Your task to perform on an android device: star an email in the gmail app Image 0: 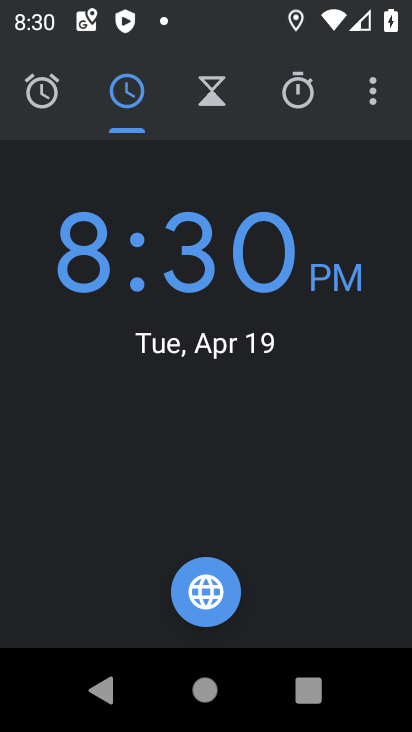
Step 0: press home button
Your task to perform on an android device: star an email in the gmail app Image 1: 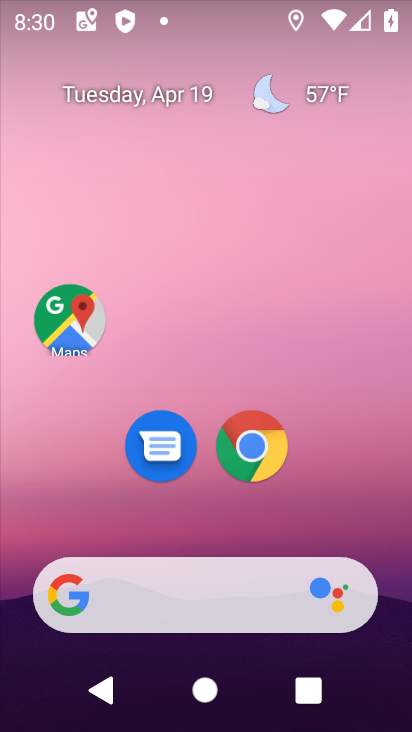
Step 1: drag from (366, 514) to (306, 124)
Your task to perform on an android device: star an email in the gmail app Image 2: 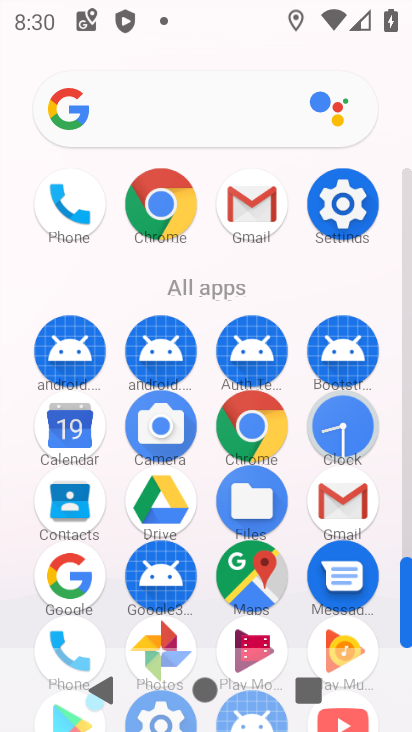
Step 2: click (255, 187)
Your task to perform on an android device: star an email in the gmail app Image 3: 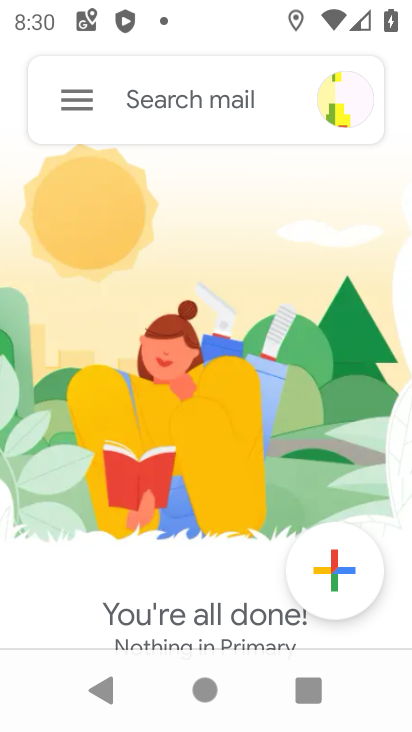
Step 3: click (73, 96)
Your task to perform on an android device: star an email in the gmail app Image 4: 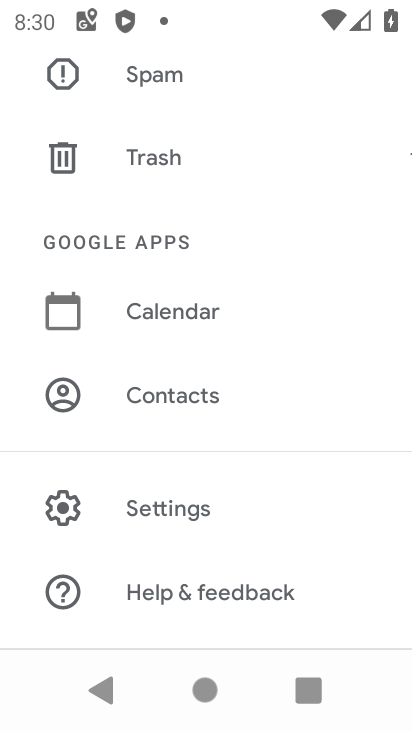
Step 4: drag from (162, 203) to (174, 609)
Your task to perform on an android device: star an email in the gmail app Image 5: 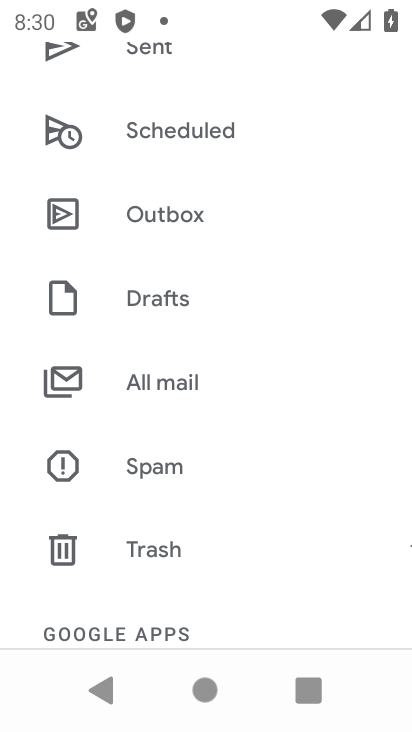
Step 5: drag from (197, 217) to (175, 564)
Your task to perform on an android device: star an email in the gmail app Image 6: 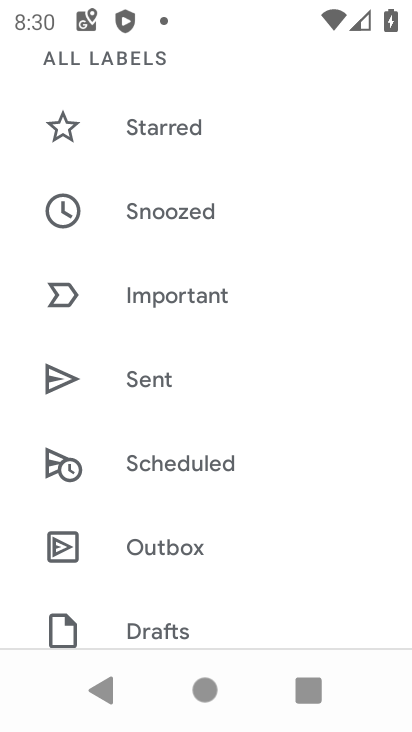
Step 6: drag from (247, 145) to (189, 528)
Your task to perform on an android device: star an email in the gmail app Image 7: 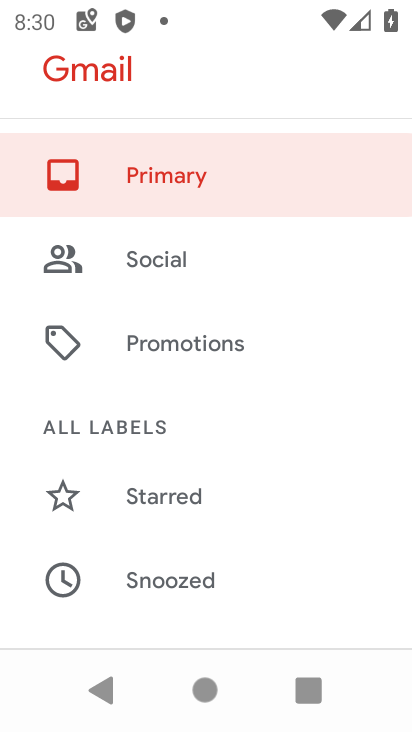
Step 7: click (290, 187)
Your task to perform on an android device: star an email in the gmail app Image 8: 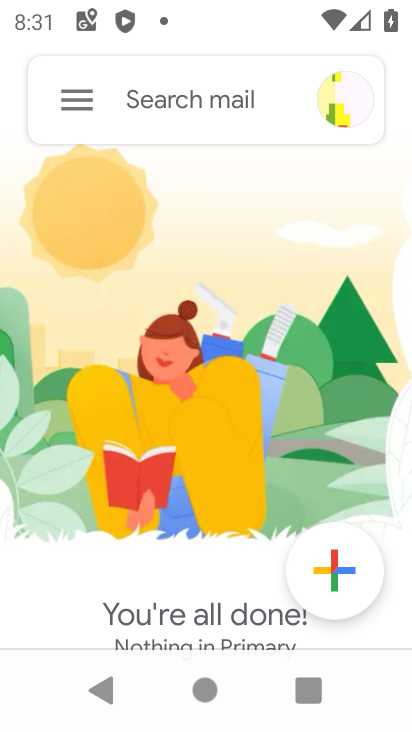
Step 8: task complete